Your task to perform on an android device: Open CNN.com Image 0: 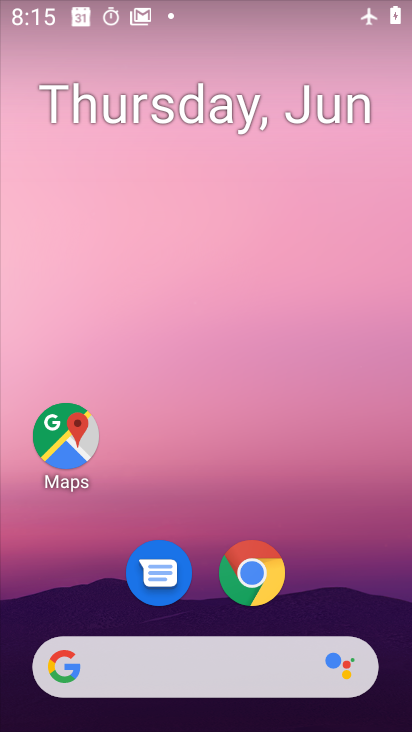
Step 0: click (243, 558)
Your task to perform on an android device: Open CNN.com Image 1: 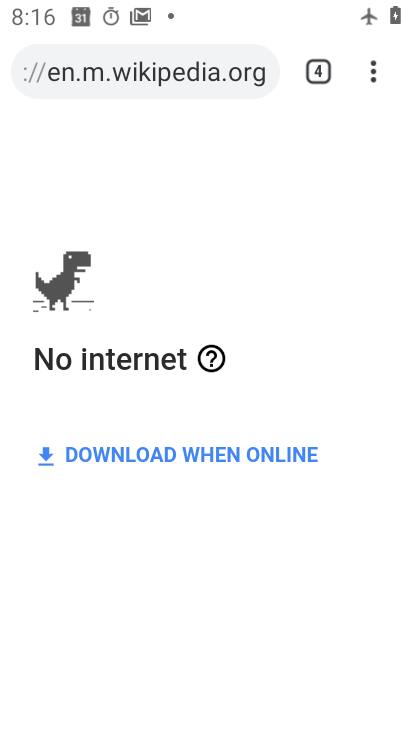
Step 1: task complete